Your task to perform on an android device: Go to Android settings Image 0: 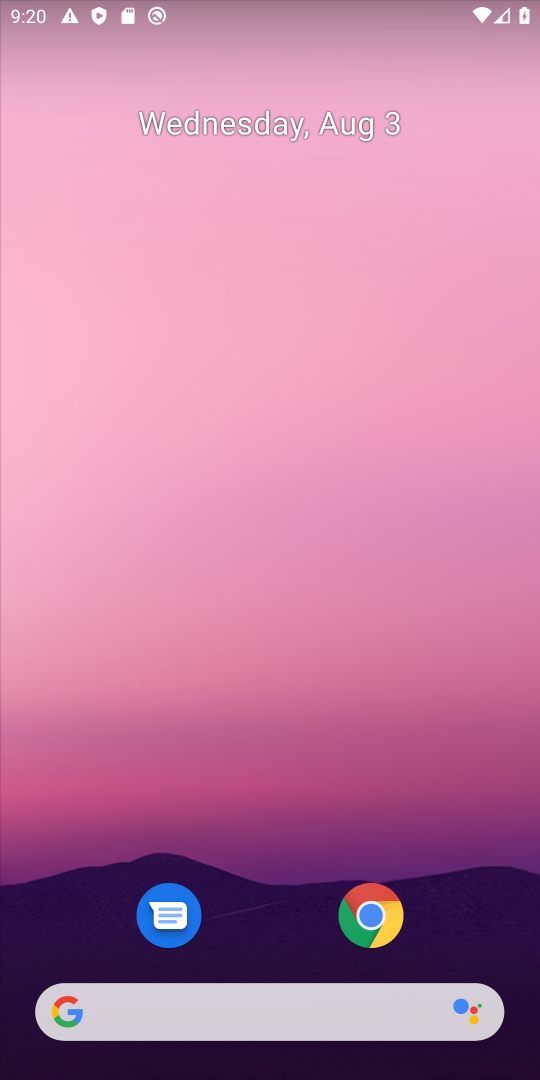
Step 0: drag from (255, 1000) to (313, 397)
Your task to perform on an android device: Go to Android settings Image 1: 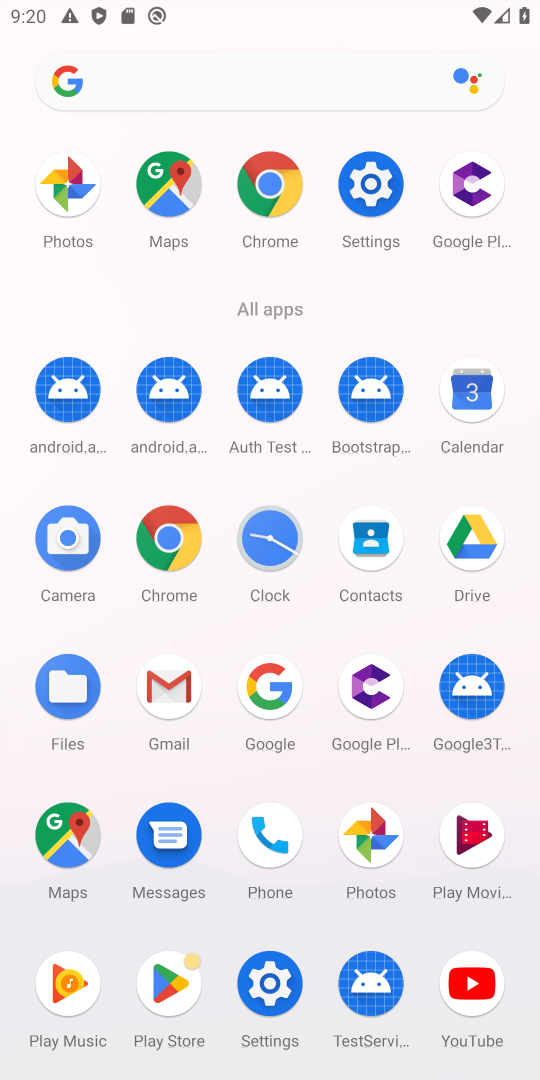
Step 1: click (353, 196)
Your task to perform on an android device: Go to Android settings Image 2: 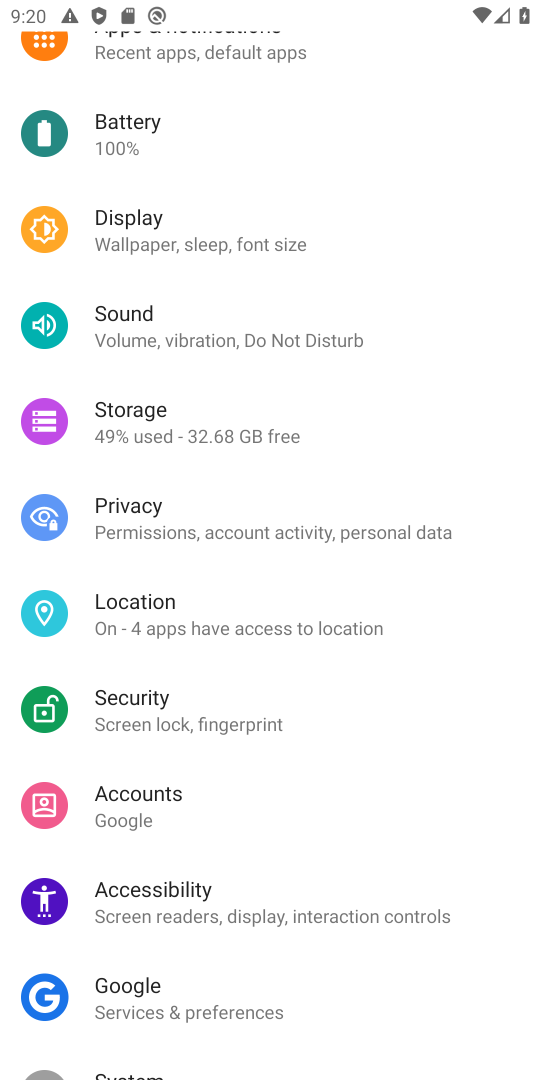
Step 2: task complete